Your task to perform on an android device: turn off improve location accuracy Image 0: 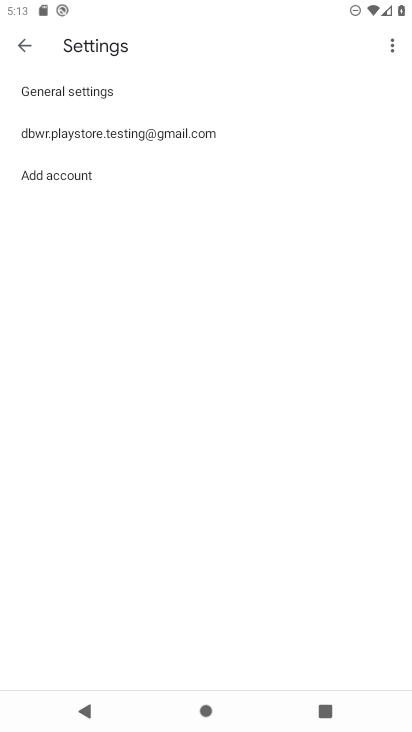
Step 0: press home button
Your task to perform on an android device: turn off improve location accuracy Image 1: 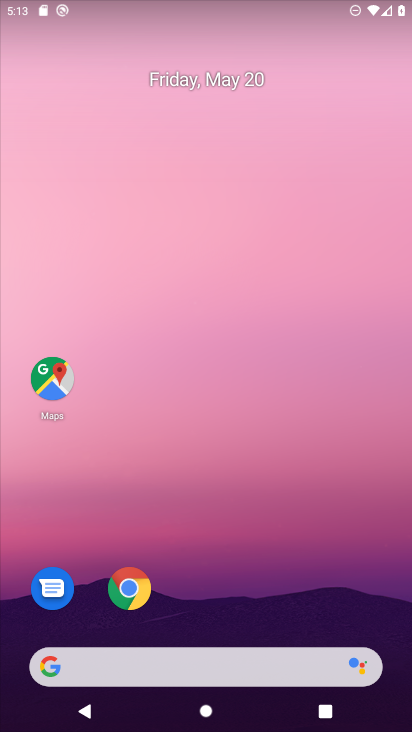
Step 1: drag from (208, 621) to (220, 194)
Your task to perform on an android device: turn off improve location accuracy Image 2: 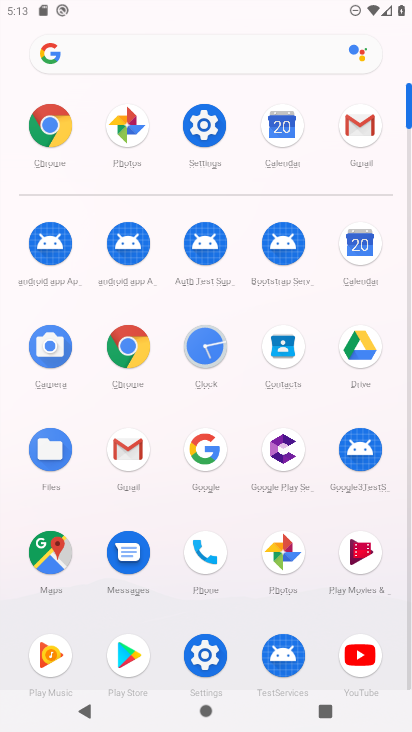
Step 2: click (201, 129)
Your task to perform on an android device: turn off improve location accuracy Image 3: 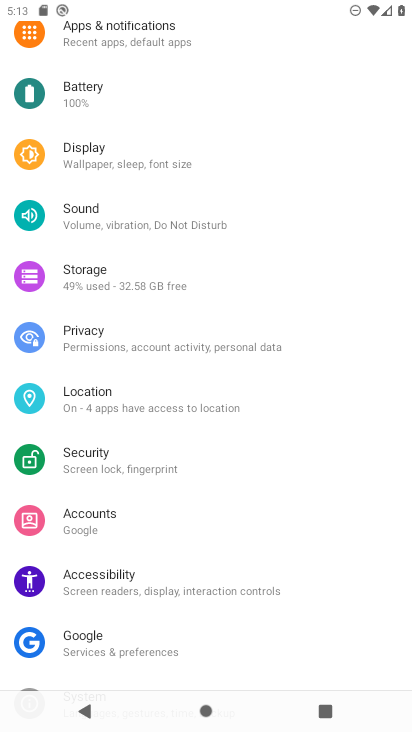
Step 3: click (96, 408)
Your task to perform on an android device: turn off improve location accuracy Image 4: 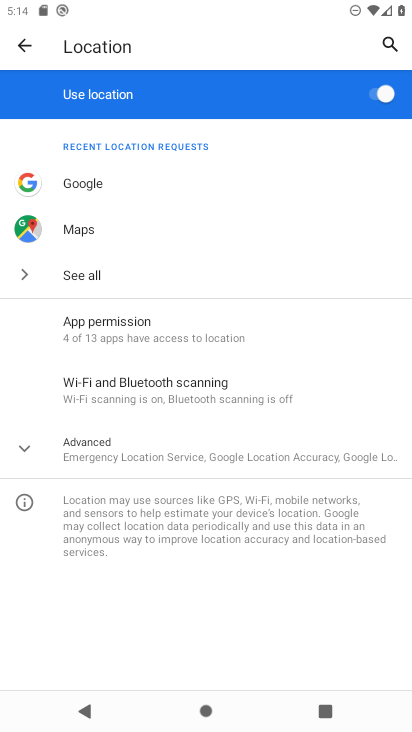
Step 4: click (97, 459)
Your task to perform on an android device: turn off improve location accuracy Image 5: 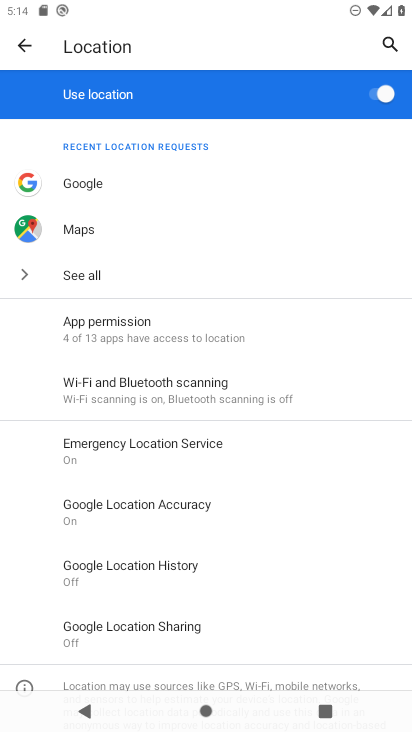
Step 5: click (120, 516)
Your task to perform on an android device: turn off improve location accuracy Image 6: 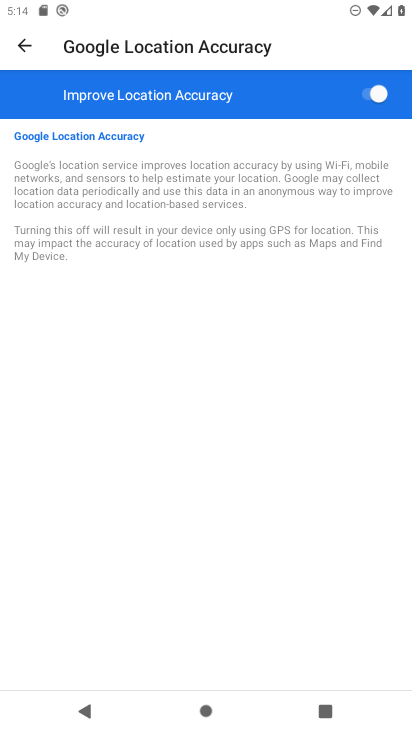
Step 6: click (370, 97)
Your task to perform on an android device: turn off improve location accuracy Image 7: 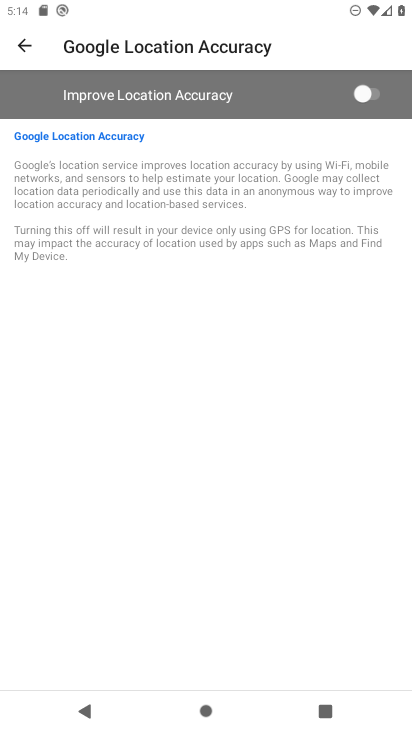
Step 7: task complete